Your task to perform on an android device: Open Reddit.com Image 0: 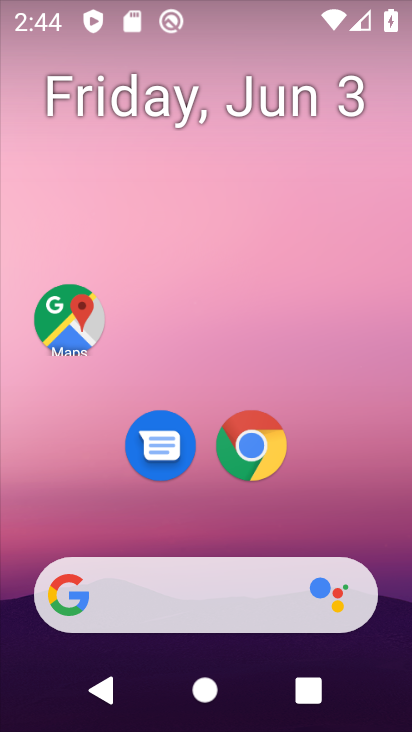
Step 0: click (145, 603)
Your task to perform on an android device: Open Reddit.com Image 1: 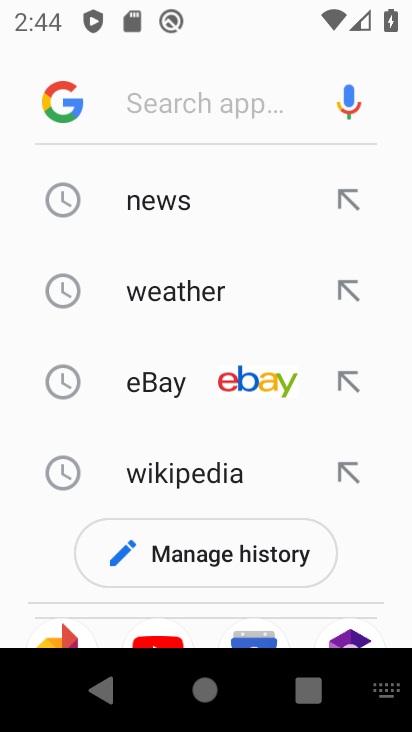
Step 1: type "Reddit.com"
Your task to perform on an android device: Open Reddit.com Image 2: 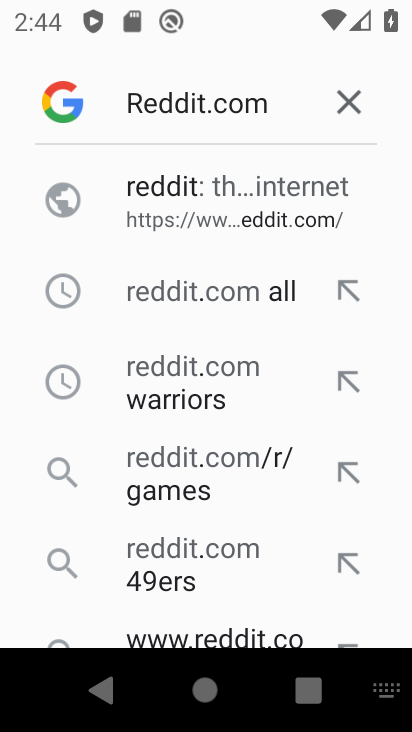
Step 2: click (206, 219)
Your task to perform on an android device: Open Reddit.com Image 3: 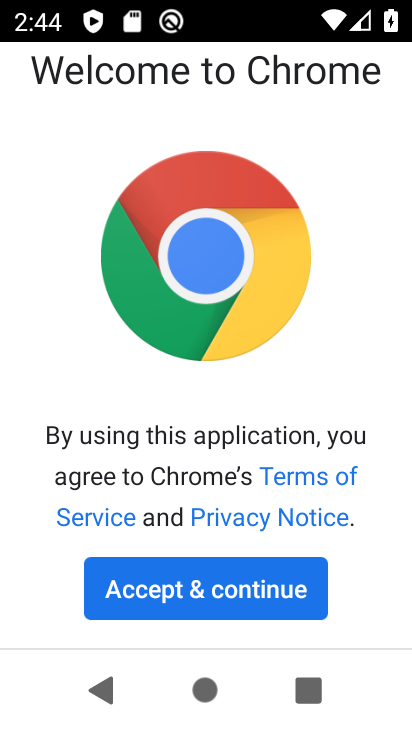
Step 3: click (250, 598)
Your task to perform on an android device: Open Reddit.com Image 4: 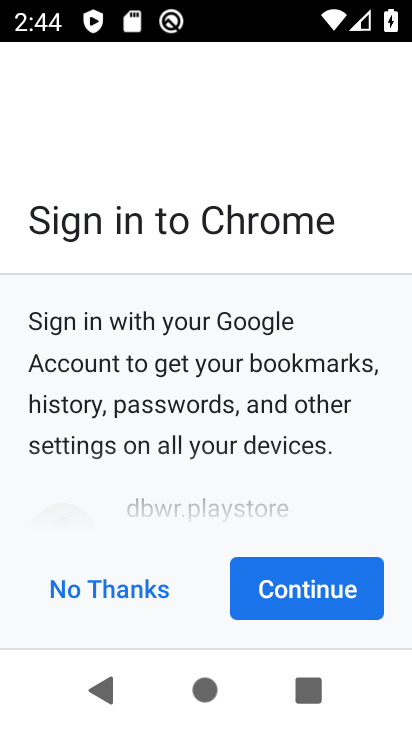
Step 4: click (293, 599)
Your task to perform on an android device: Open Reddit.com Image 5: 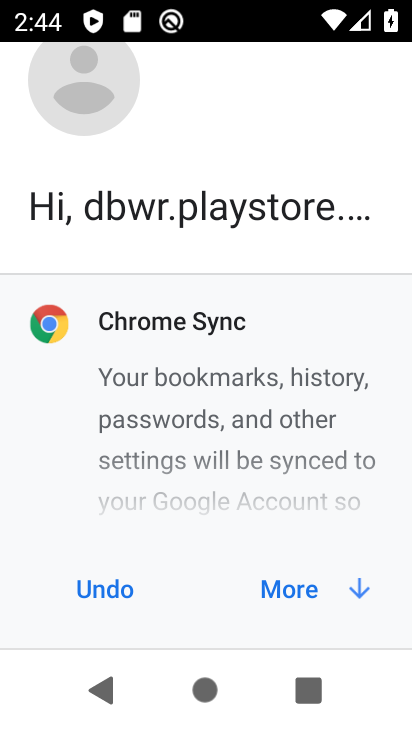
Step 5: click (293, 599)
Your task to perform on an android device: Open Reddit.com Image 6: 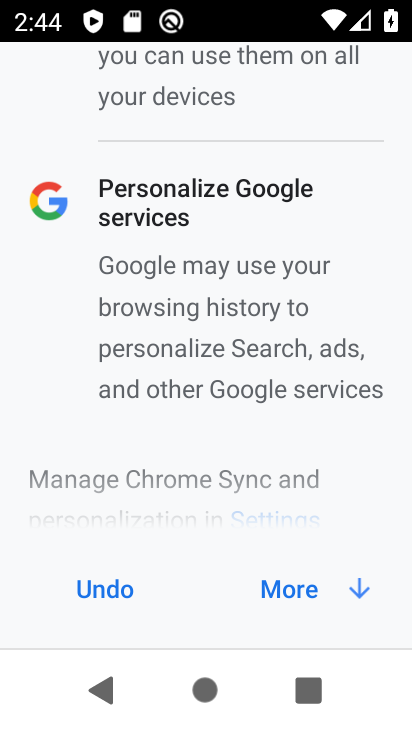
Step 6: click (293, 599)
Your task to perform on an android device: Open Reddit.com Image 7: 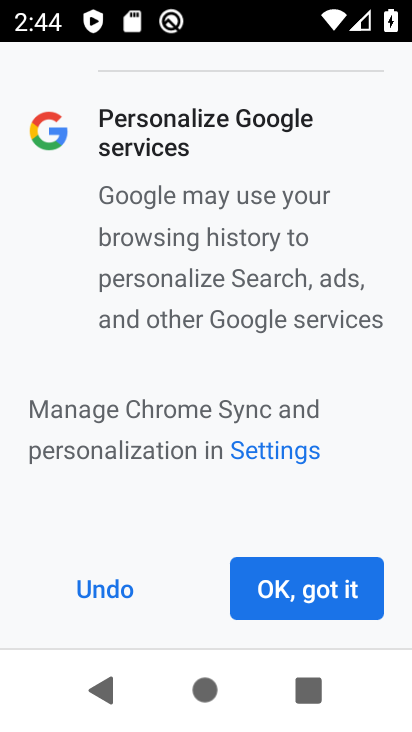
Step 7: click (293, 599)
Your task to perform on an android device: Open Reddit.com Image 8: 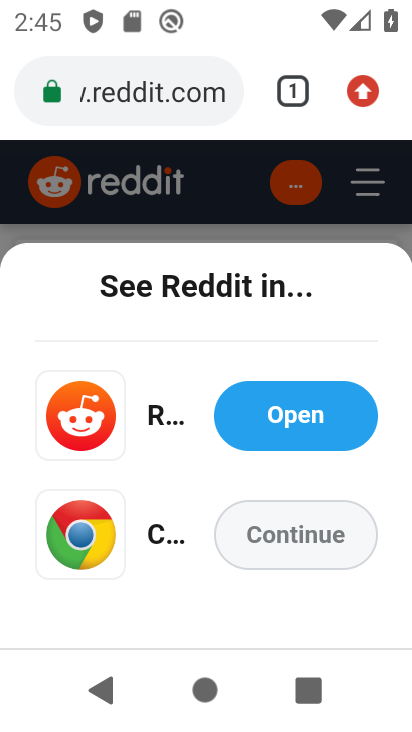
Step 8: click (327, 547)
Your task to perform on an android device: Open Reddit.com Image 9: 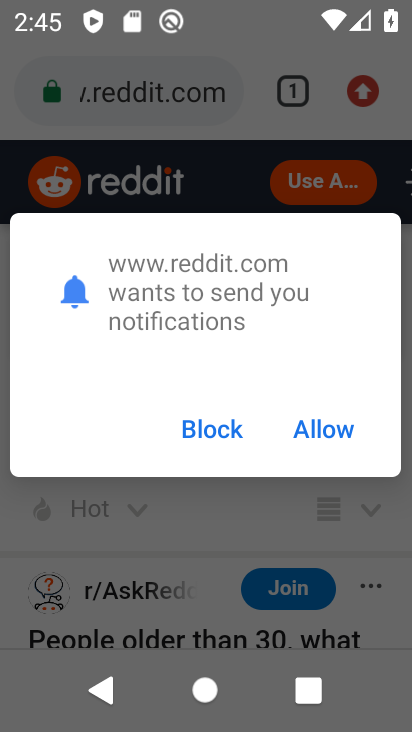
Step 9: click (334, 447)
Your task to perform on an android device: Open Reddit.com Image 10: 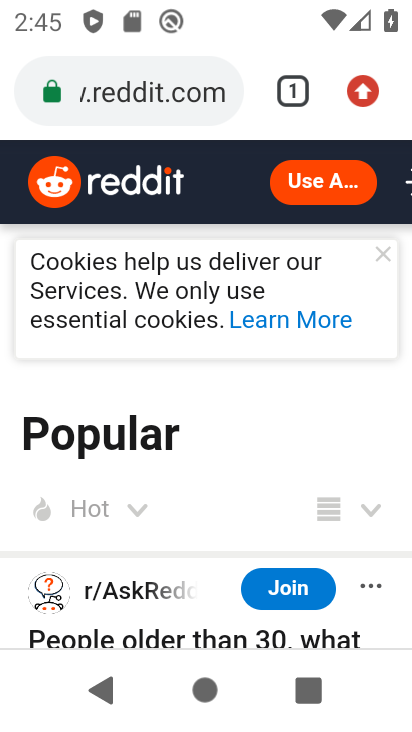
Step 10: task complete